Your task to perform on an android device: add a label to a message in the gmail app Image 0: 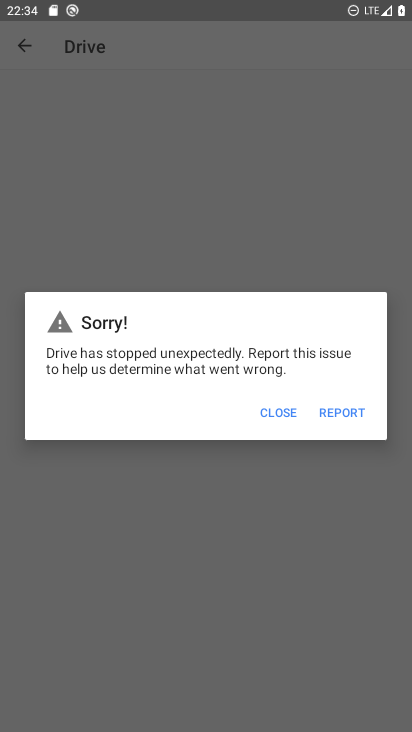
Step 0: press home button
Your task to perform on an android device: add a label to a message in the gmail app Image 1: 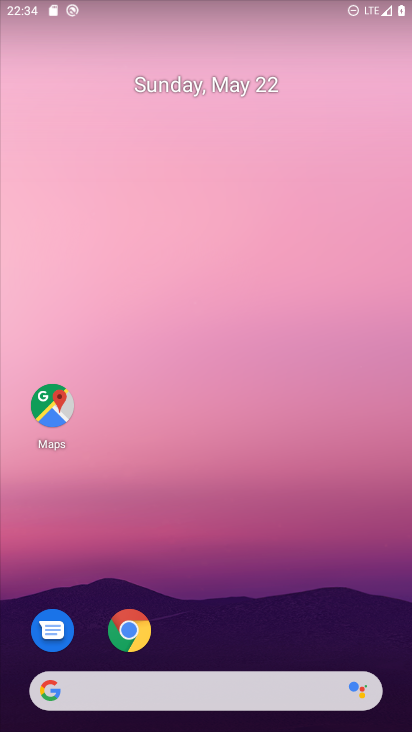
Step 1: drag from (150, 695) to (297, 210)
Your task to perform on an android device: add a label to a message in the gmail app Image 2: 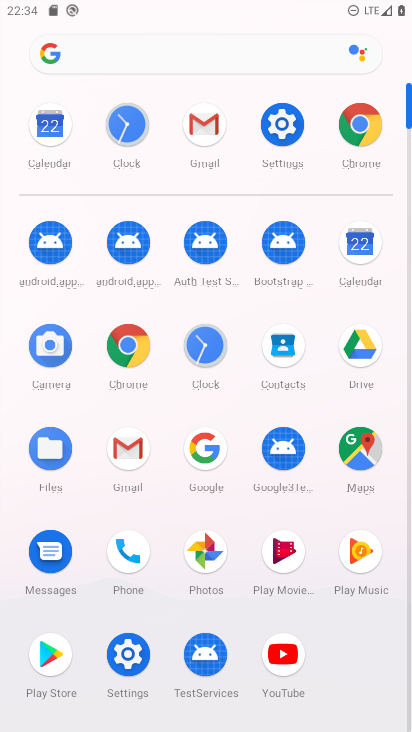
Step 2: click (210, 137)
Your task to perform on an android device: add a label to a message in the gmail app Image 3: 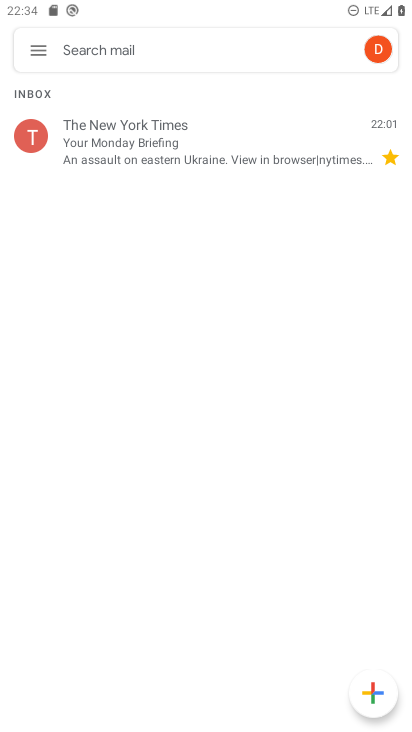
Step 3: click (145, 142)
Your task to perform on an android device: add a label to a message in the gmail app Image 4: 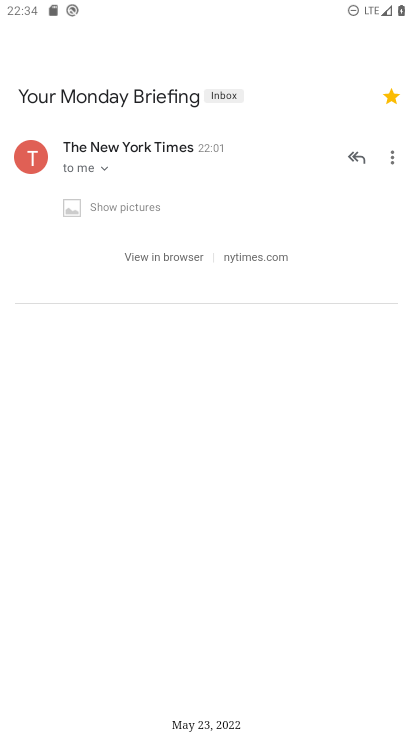
Step 4: click (225, 96)
Your task to perform on an android device: add a label to a message in the gmail app Image 5: 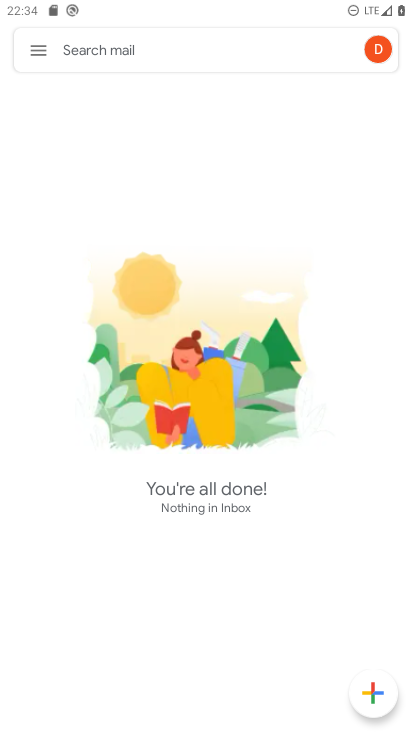
Step 5: task complete